Your task to perform on an android device: Open the web browser Image 0: 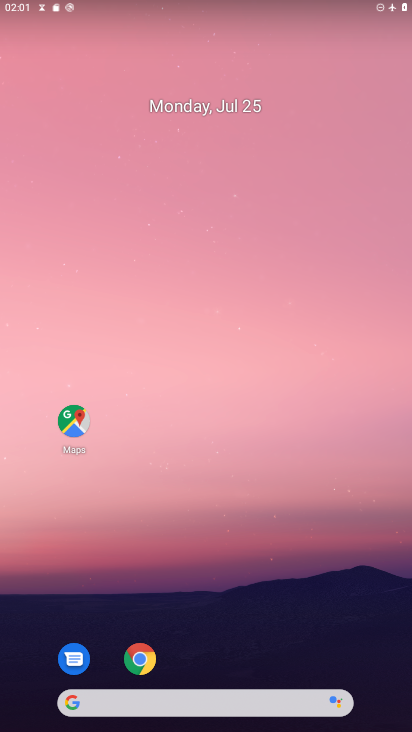
Step 0: click (138, 651)
Your task to perform on an android device: Open the web browser Image 1: 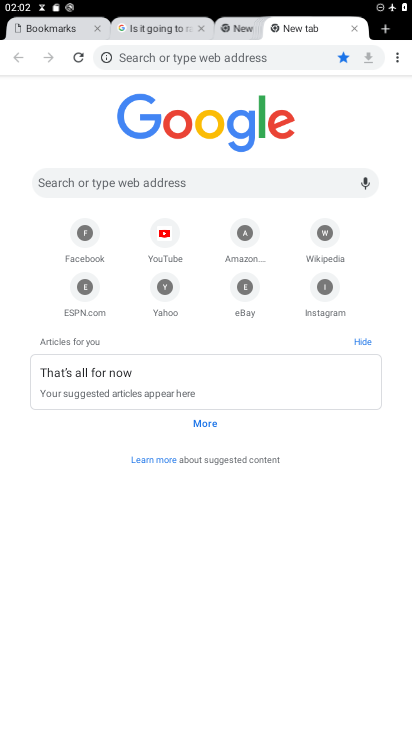
Step 1: task complete